Your task to perform on an android device: toggle pop-ups in chrome Image 0: 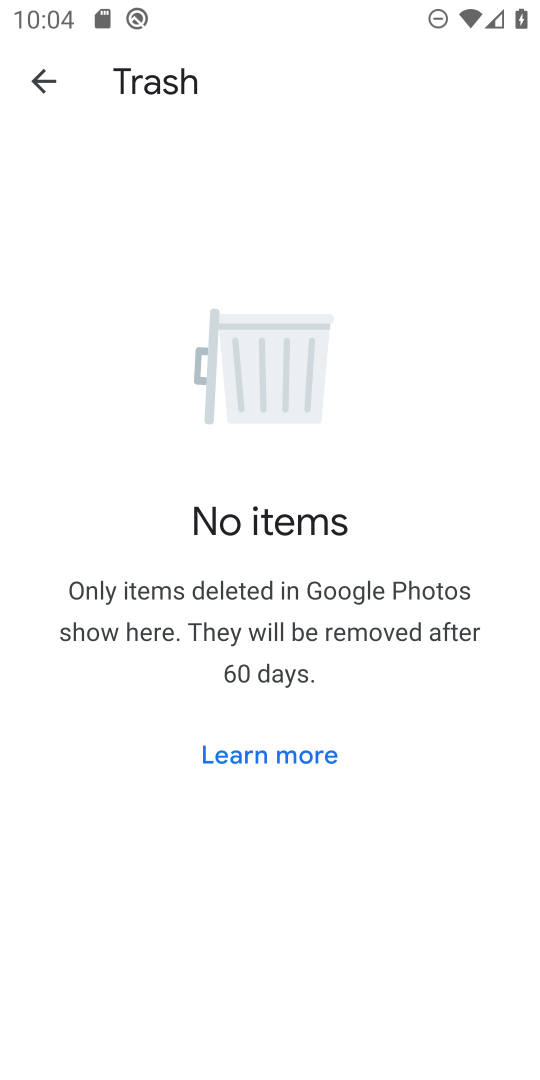
Step 0: press home button
Your task to perform on an android device: toggle pop-ups in chrome Image 1: 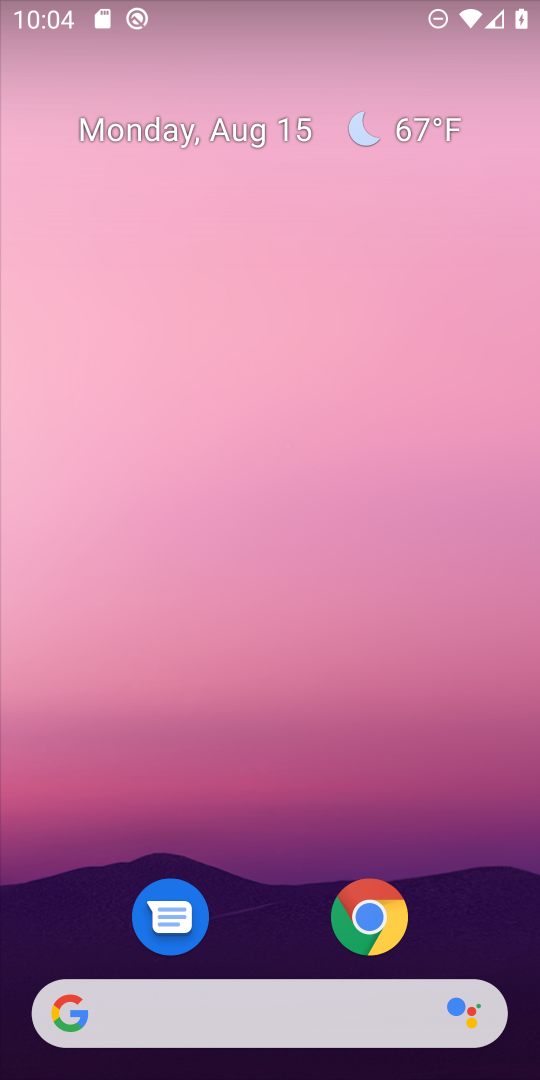
Step 1: click (358, 915)
Your task to perform on an android device: toggle pop-ups in chrome Image 2: 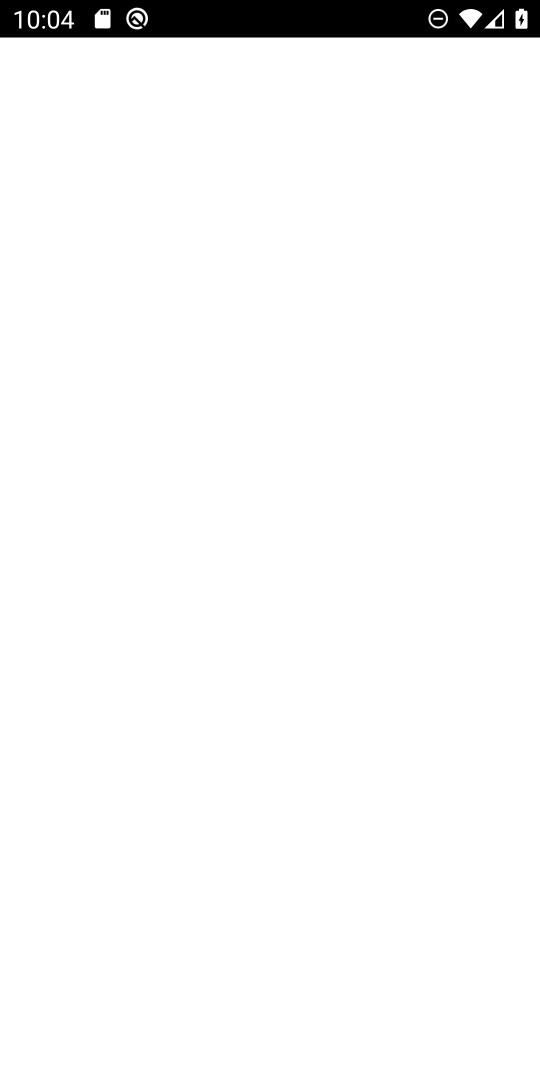
Step 2: click (358, 915)
Your task to perform on an android device: toggle pop-ups in chrome Image 3: 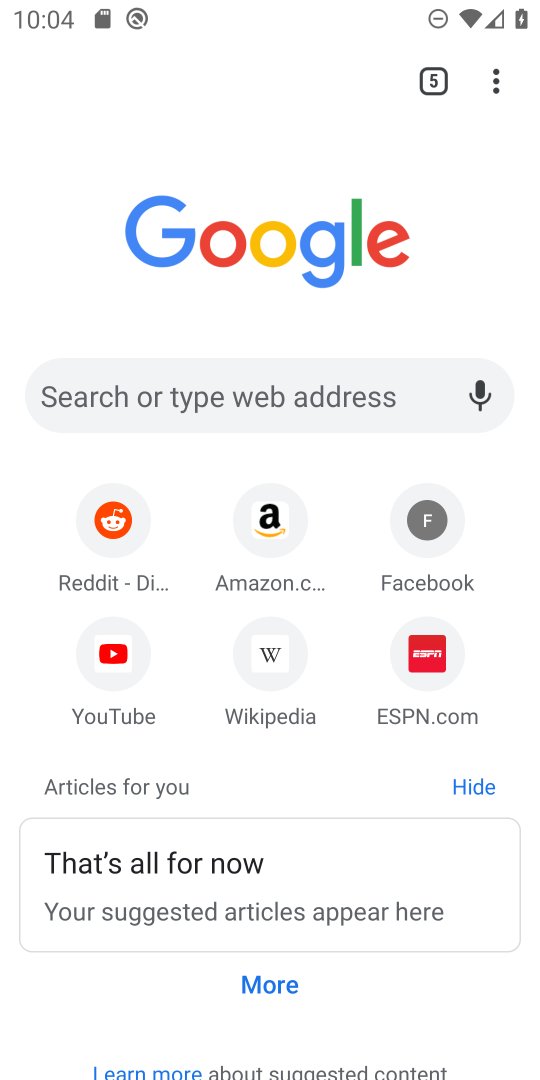
Step 3: click (498, 77)
Your task to perform on an android device: toggle pop-ups in chrome Image 4: 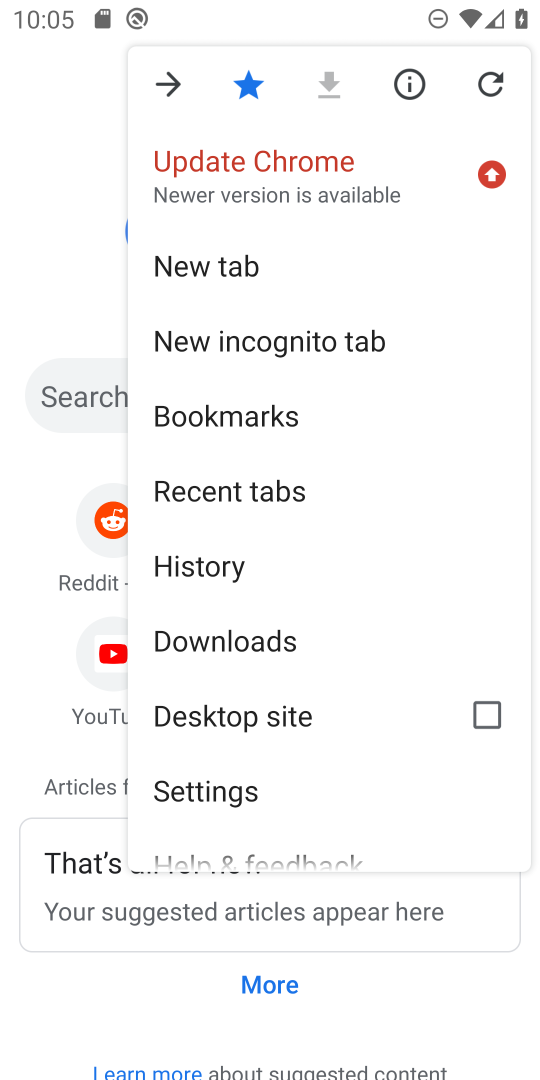
Step 4: click (241, 782)
Your task to perform on an android device: toggle pop-ups in chrome Image 5: 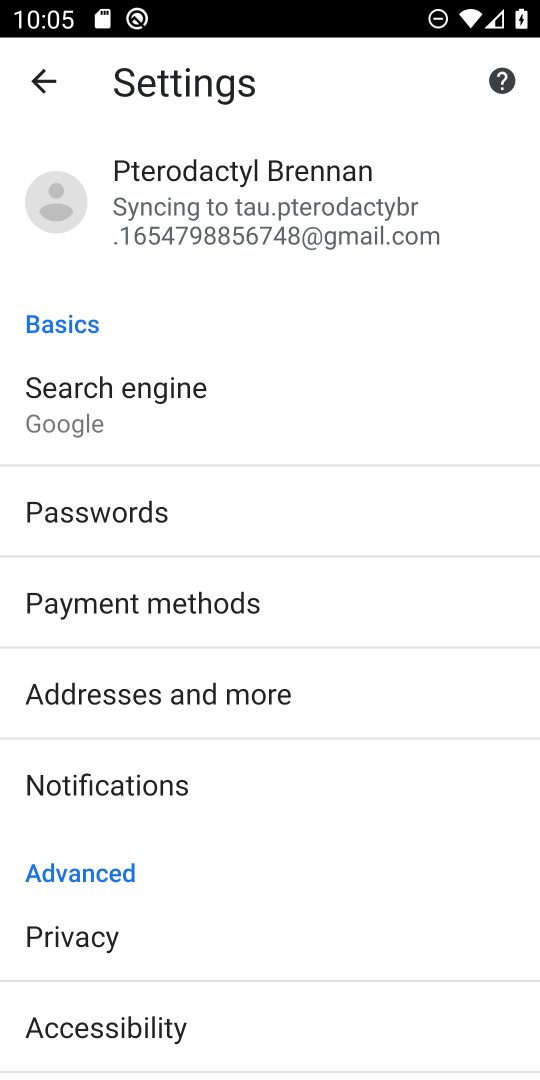
Step 5: drag from (302, 947) to (367, 448)
Your task to perform on an android device: toggle pop-ups in chrome Image 6: 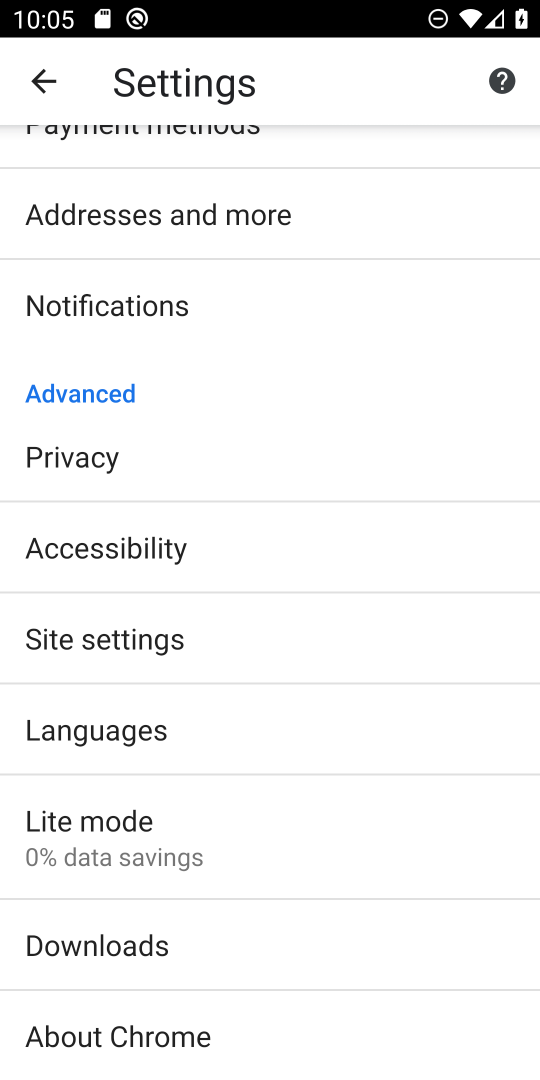
Step 6: click (288, 631)
Your task to perform on an android device: toggle pop-ups in chrome Image 7: 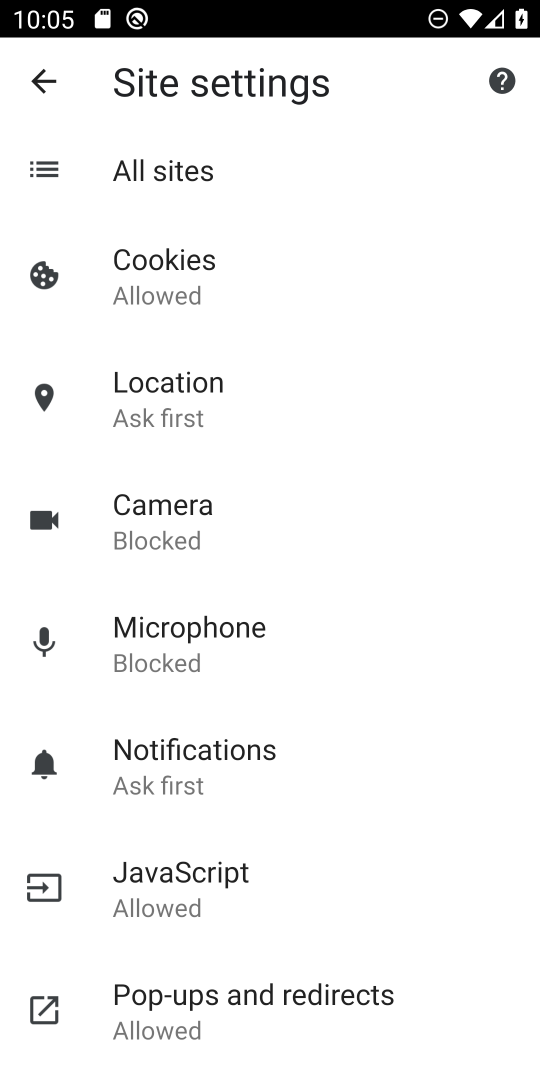
Step 7: click (288, 1002)
Your task to perform on an android device: toggle pop-ups in chrome Image 8: 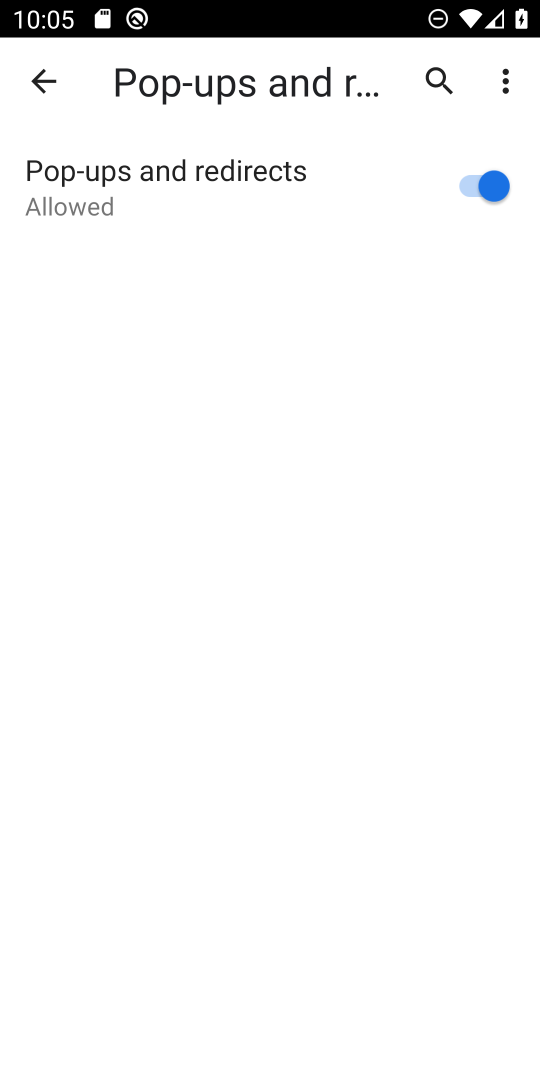
Step 8: click (480, 179)
Your task to perform on an android device: toggle pop-ups in chrome Image 9: 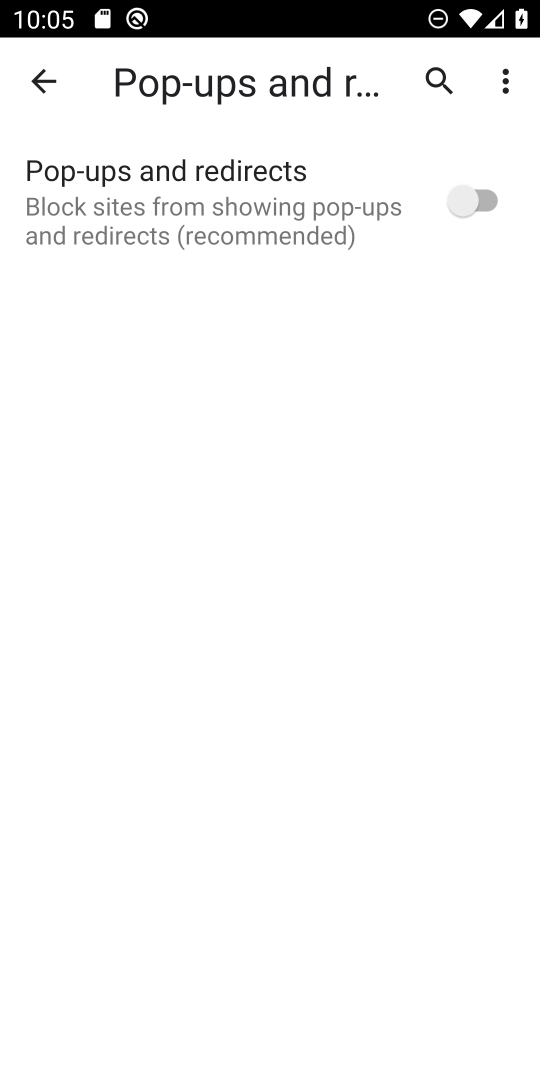
Step 9: task complete